Your task to perform on an android device: Open network settings Image 0: 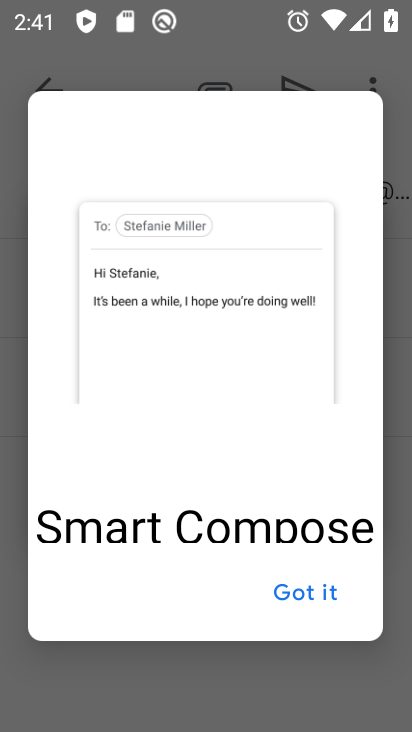
Step 0: press home button
Your task to perform on an android device: Open network settings Image 1: 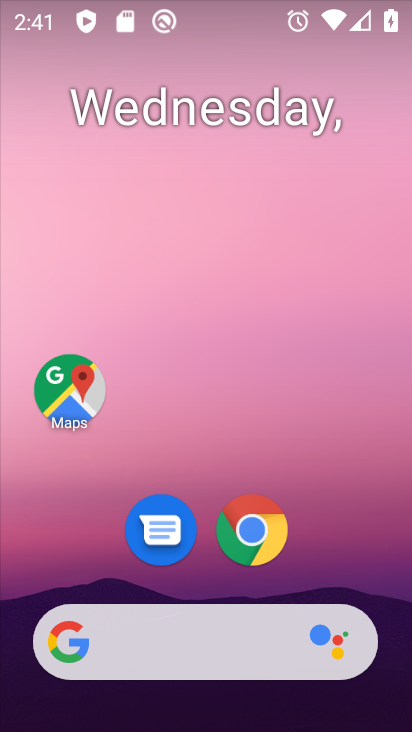
Step 1: drag from (173, 652) to (243, 197)
Your task to perform on an android device: Open network settings Image 2: 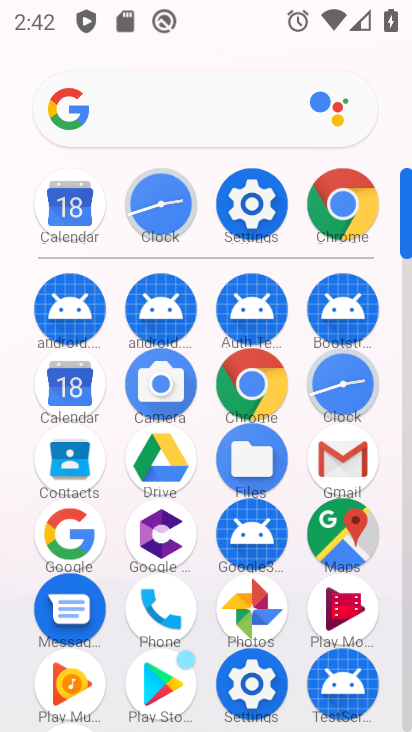
Step 2: click (255, 210)
Your task to perform on an android device: Open network settings Image 3: 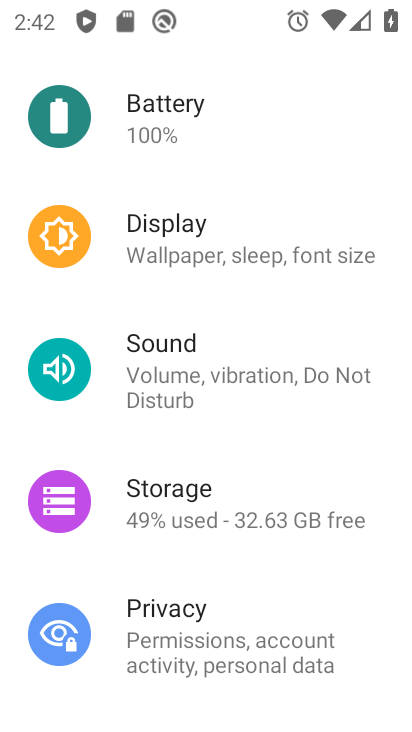
Step 3: drag from (208, 137) to (307, 703)
Your task to perform on an android device: Open network settings Image 4: 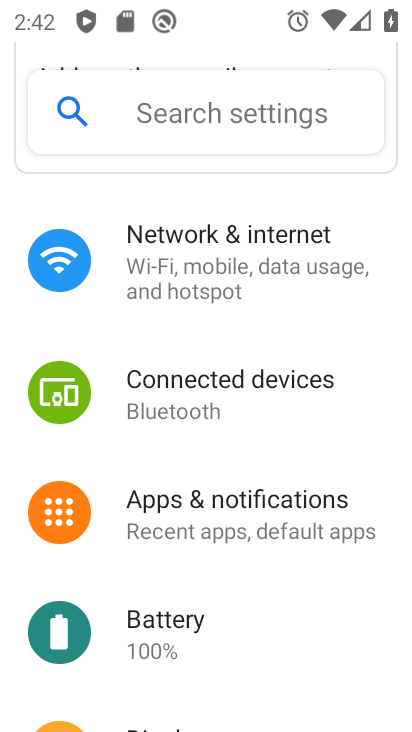
Step 4: click (227, 269)
Your task to perform on an android device: Open network settings Image 5: 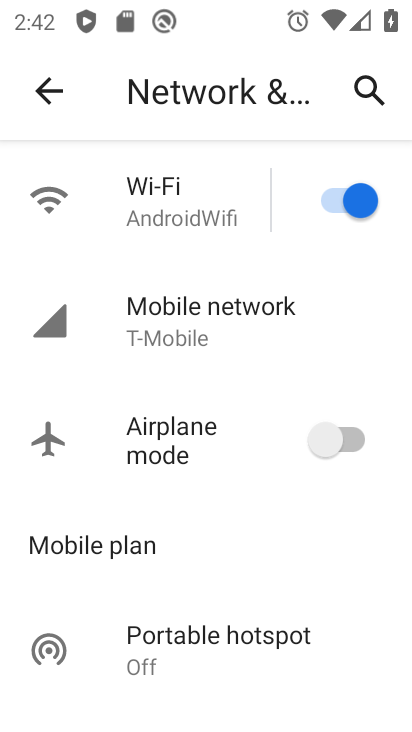
Step 5: task complete